Your task to perform on an android device: Search for Mexican restaurants on Maps Image 0: 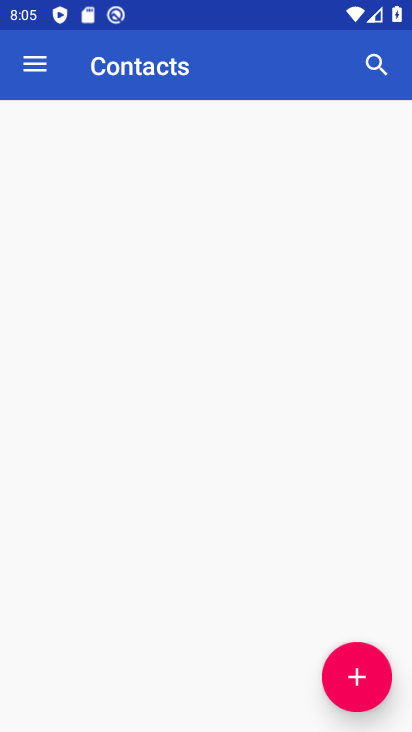
Step 0: press back button
Your task to perform on an android device: Search for Mexican restaurants on Maps Image 1: 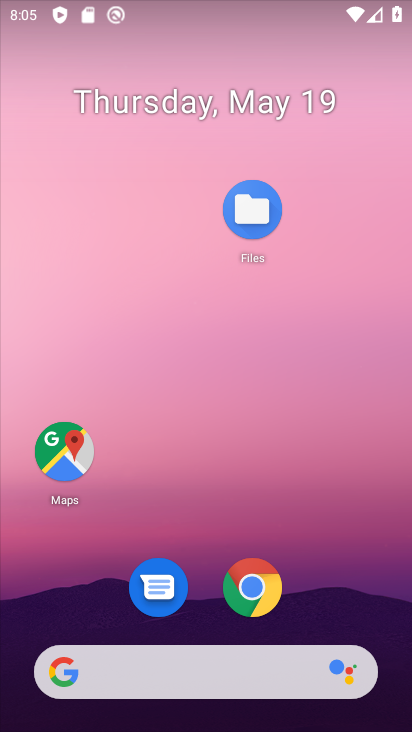
Step 1: drag from (303, 631) to (106, 152)
Your task to perform on an android device: Search for Mexican restaurants on Maps Image 2: 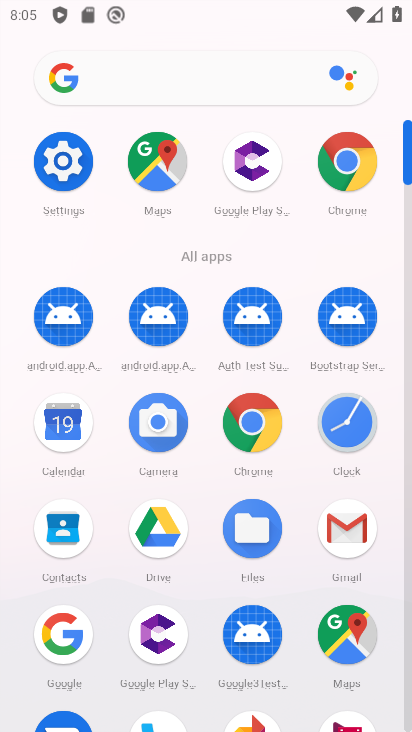
Step 2: drag from (180, 461) to (174, 168)
Your task to perform on an android device: Search for Mexican restaurants on Maps Image 3: 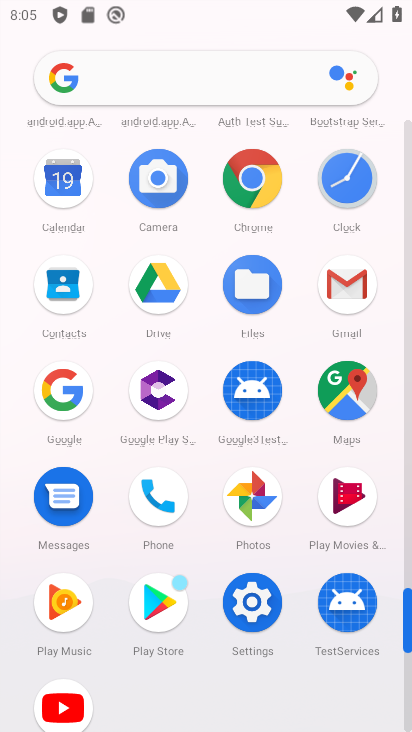
Step 3: click (349, 394)
Your task to perform on an android device: Search for Mexican restaurants on Maps Image 4: 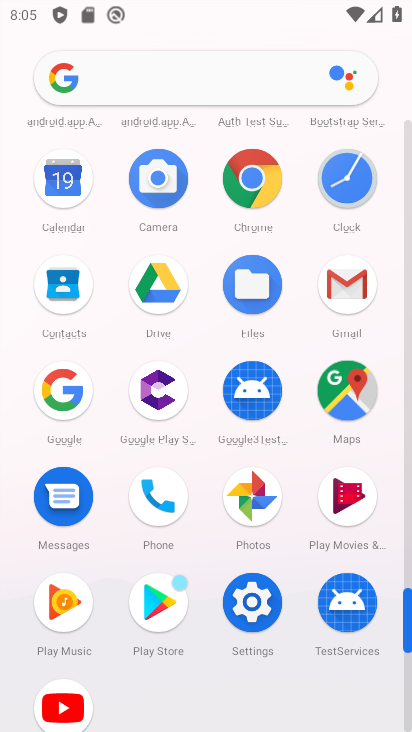
Step 4: click (349, 394)
Your task to perform on an android device: Search for Mexican restaurants on Maps Image 5: 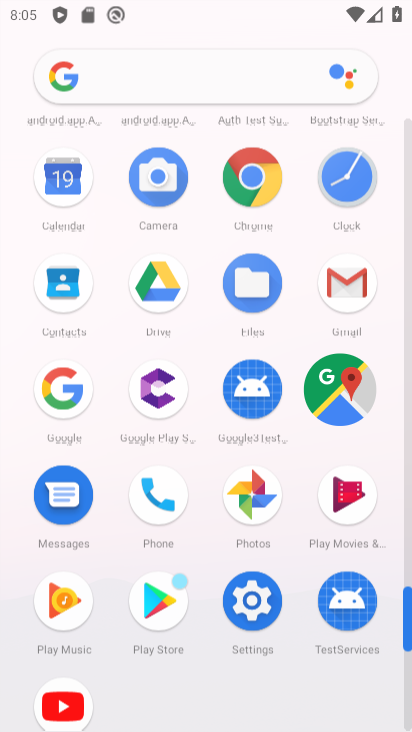
Step 5: click (349, 394)
Your task to perform on an android device: Search for Mexican restaurants on Maps Image 6: 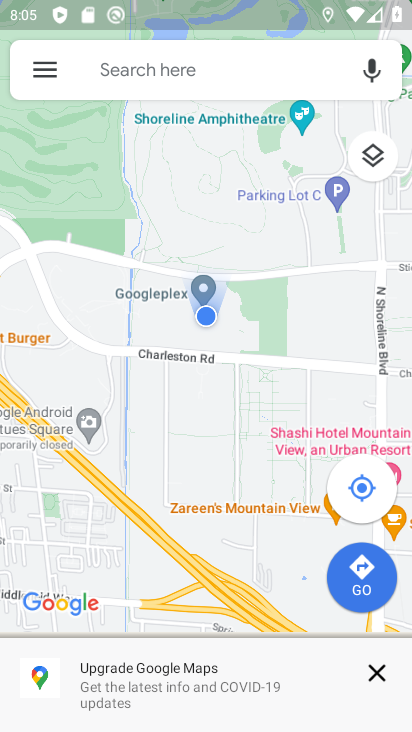
Step 6: click (112, 71)
Your task to perform on an android device: Search for Mexican restaurants on Maps Image 7: 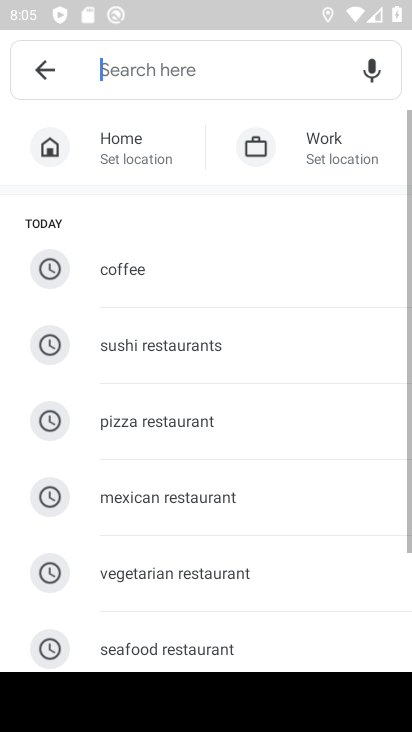
Step 7: click (177, 506)
Your task to perform on an android device: Search for Mexican restaurants on Maps Image 8: 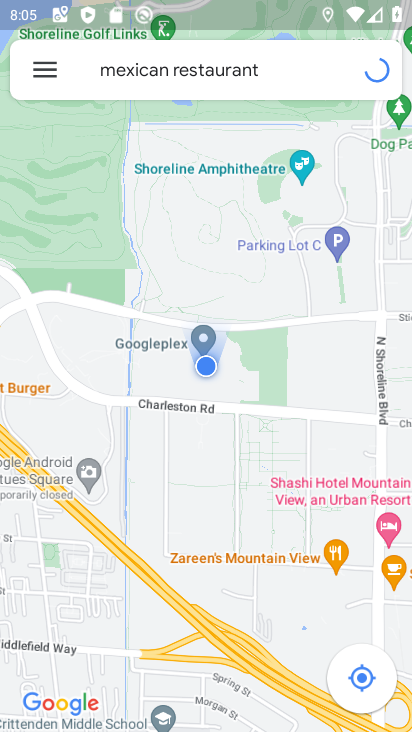
Step 8: task complete